Your task to perform on an android device: turn off translation in the chrome app Image 0: 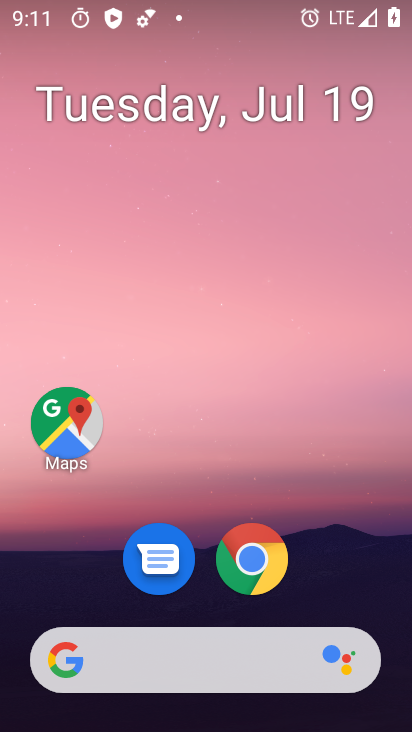
Step 0: drag from (392, 638) to (291, 124)
Your task to perform on an android device: turn off translation in the chrome app Image 1: 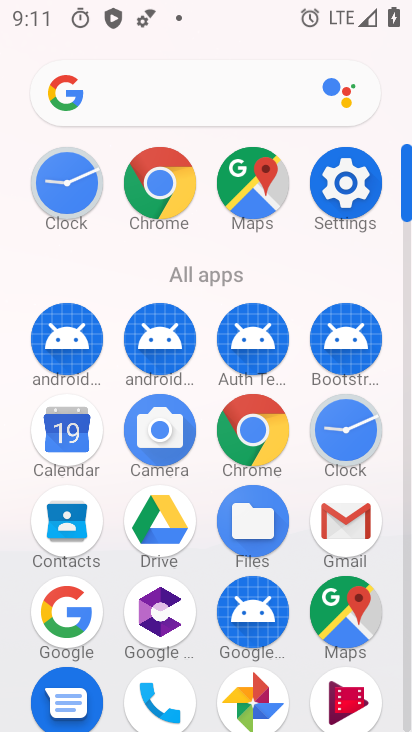
Step 1: click (178, 185)
Your task to perform on an android device: turn off translation in the chrome app Image 2: 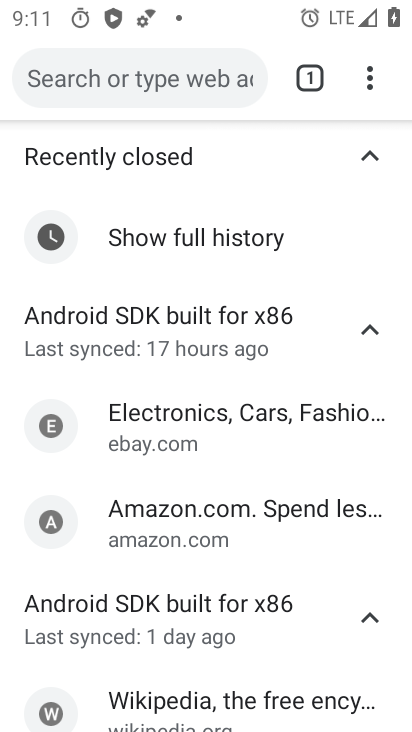
Step 2: click (375, 71)
Your task to perform on an android device: turn off translation in the chrome app Image 3: 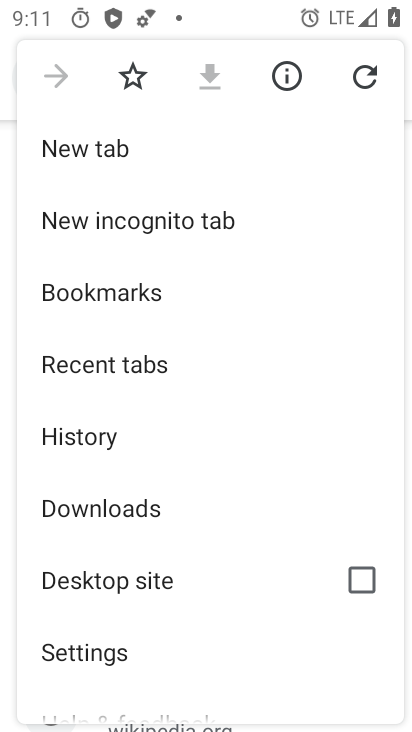
Step 3: drag from (203, 697) to (193, 356)
Your task to perform on an android device: turn off translation in the chrome app Image 4: 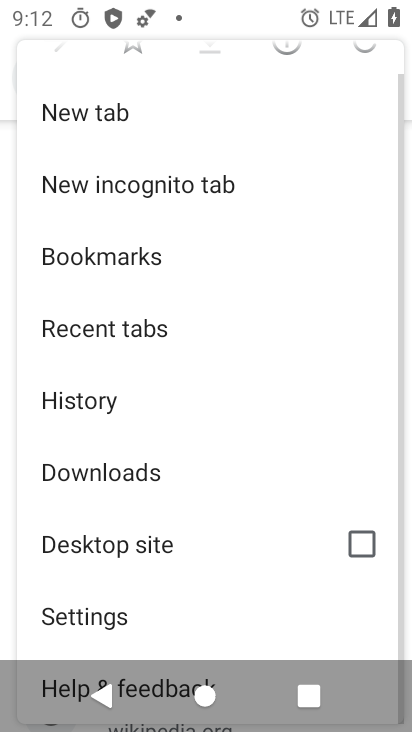
Step 4: click (129, 610)
Your task to perform on an android device: turn off translation in the chrome app Image 5: 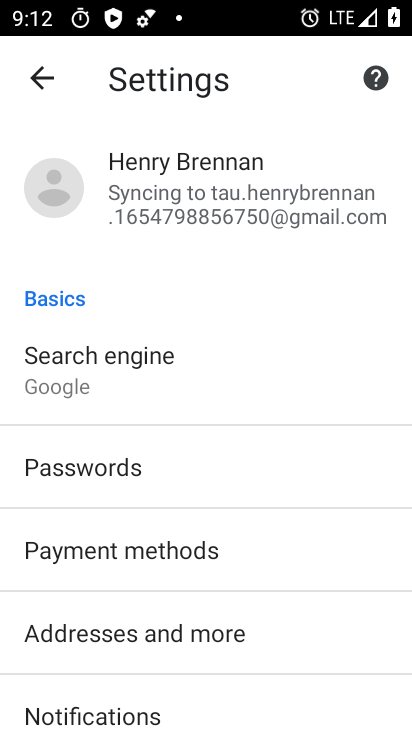
Step 5: drag from (170, 721) to (185, 132)
Your task to perform on an android device: turn off translation in the chrome app Image 6: 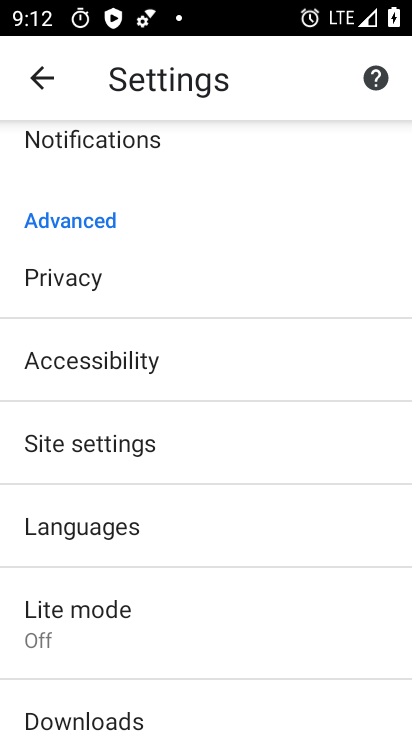
Step 6: click (181, 529)
Your task to perform on an android device: turn off translation in the chrome app Image 7: 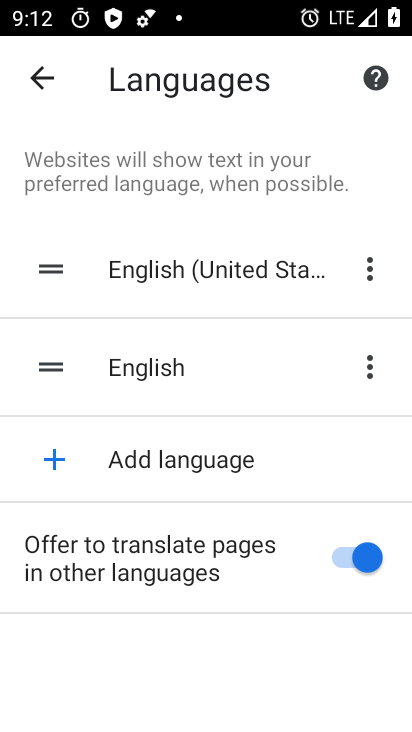
Step 7: click (322, 567)
Your task to perform on an android device: turn off translation in the chrome app Image 8: 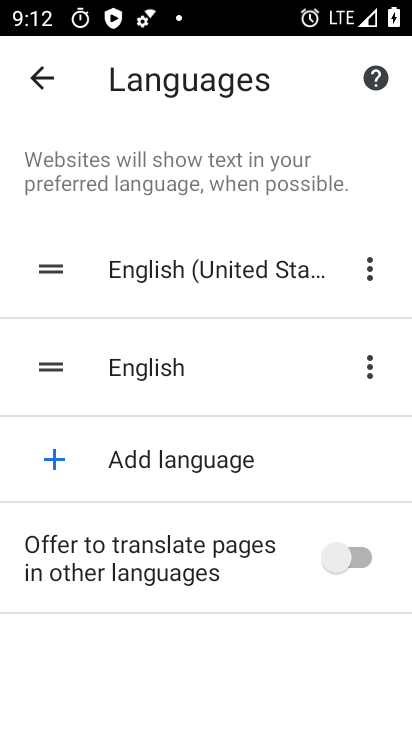
Step 8: task complete